Your task to perform on an android device: toggle data saver in the chrome app Image 0: 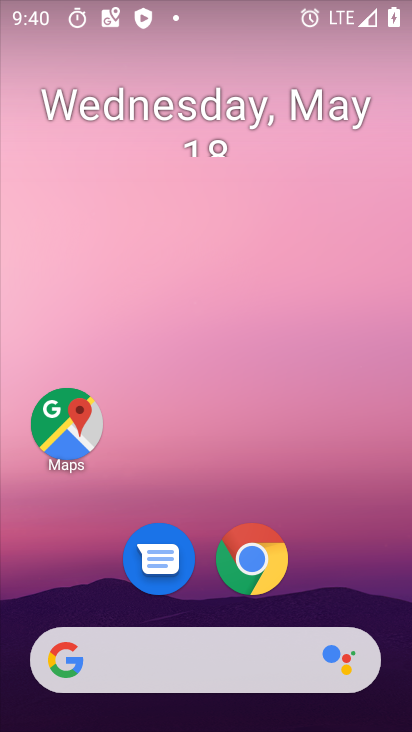
Step 0: drag from (314, 540) to (329, 22)
Your task to perform on an android device: toggle data saver in the chrome app Image 1: 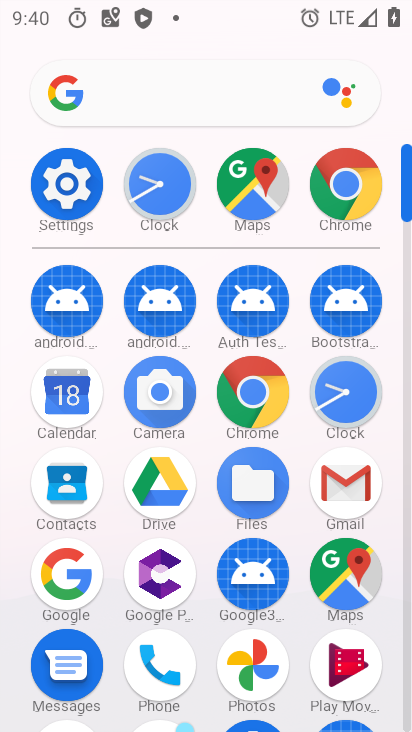
Step 1: drag from (0, 521) to (7, 235)
Your task to perform on an android device: toggle data saver in the chrome app Image 2: 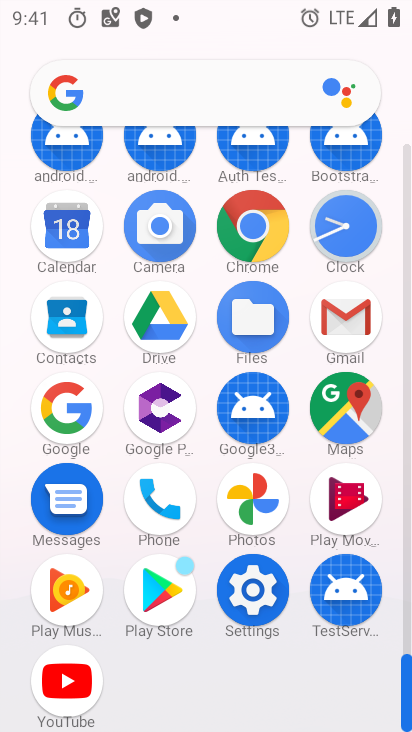
Step 2: click (250, 226)
Your task to perform on an android device: toggle data saver in the chrome app Image 3: 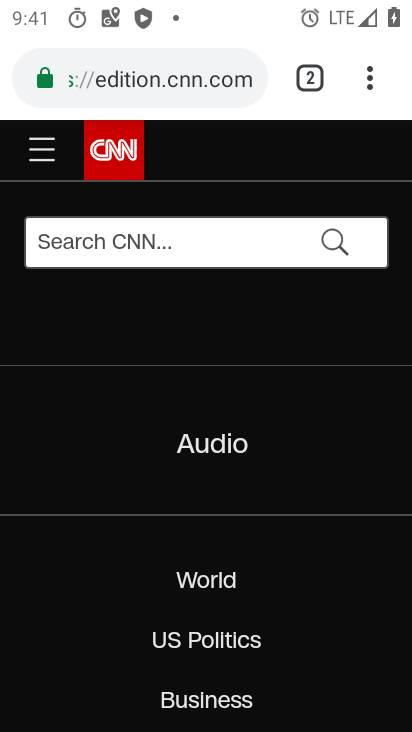
Step 3: drag from (365, 91) to (113, 619)
Your task to perform on an android device: toggle data saver in the chrome app Image 4: 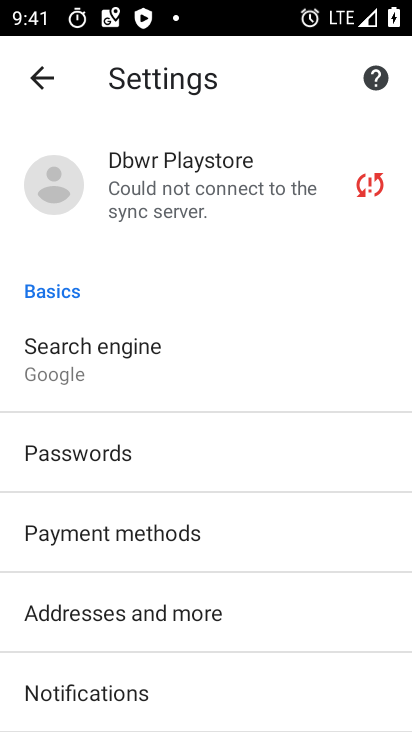
Step 4: drag from (211, 594) to (233, 207)
Your task to perform on an android device: toggle data saver in the chrome app Image 5: 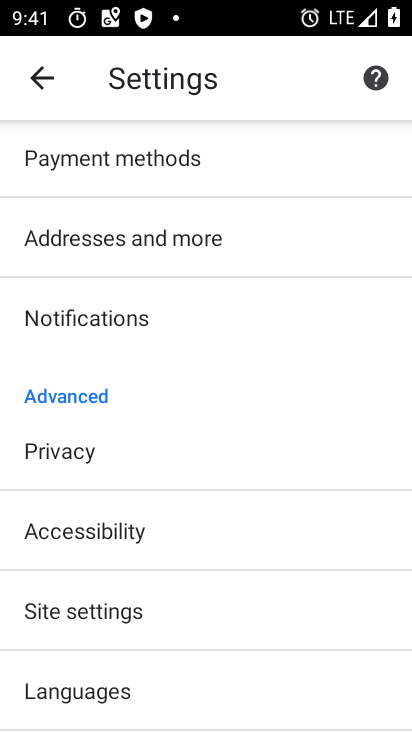
Step 5: drag from (235, 559) to (234, 184)
Your task to perform on an android device: toggle data saver in the chrome app Image 6: 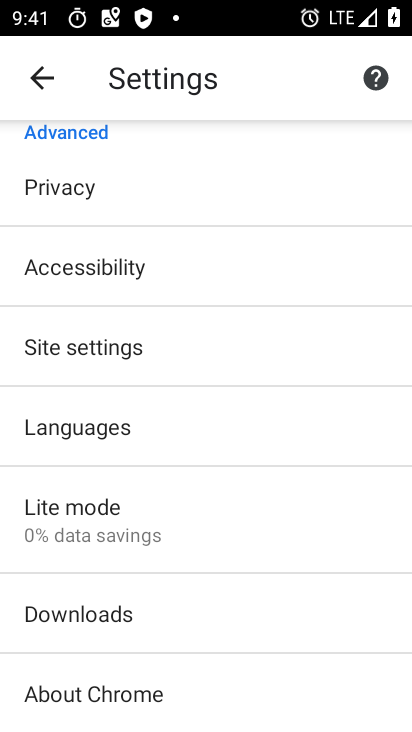
Step 6: click (131, 525)
Your task to perform on an android device: toggle data saver in the chrome app Image 7: 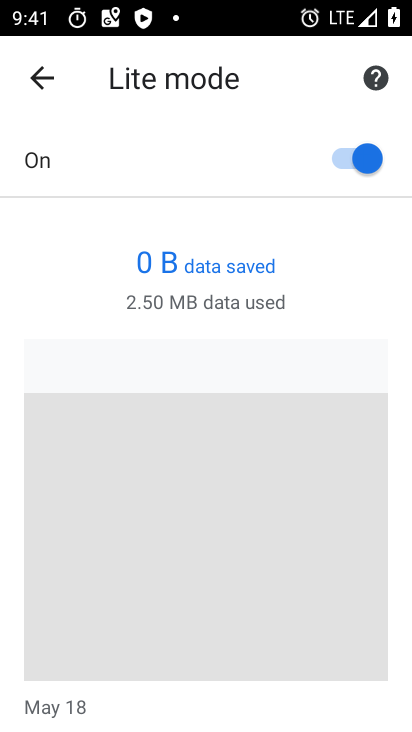
Step 7: click (357, 151)
Your task to perform on an android device: toggle data saver in the chrome app Image 8: 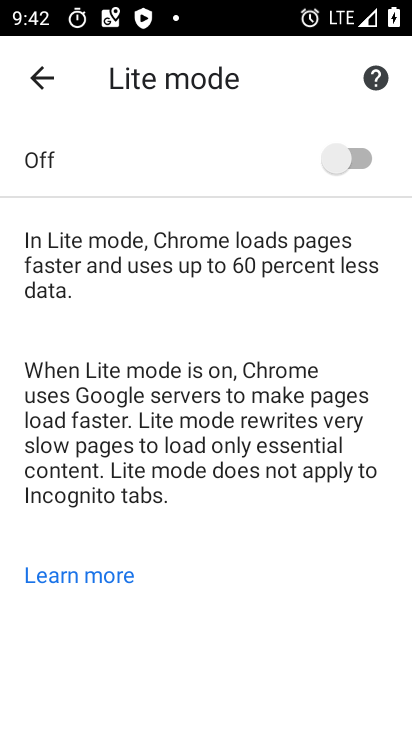
Step 8: task complete